Your task to perform on an android device: Go to Yahoo.com Image 0: 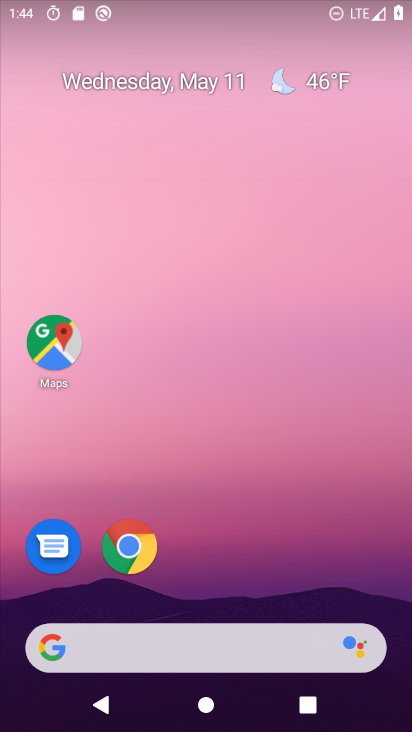
Step 0: drag from (268, 680) to (159, 242)
Your task to perform on an android device: Go to Yahoo.com Image 1: 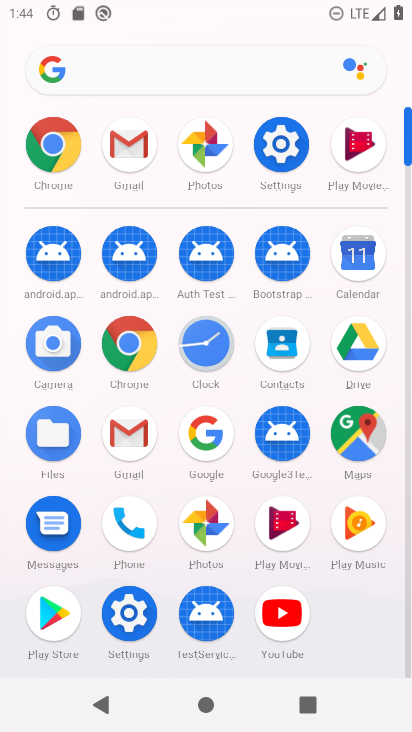
Step 1: click (50, 126)
Your task to perform on an android device: Go to Yahoo.com Image 2: 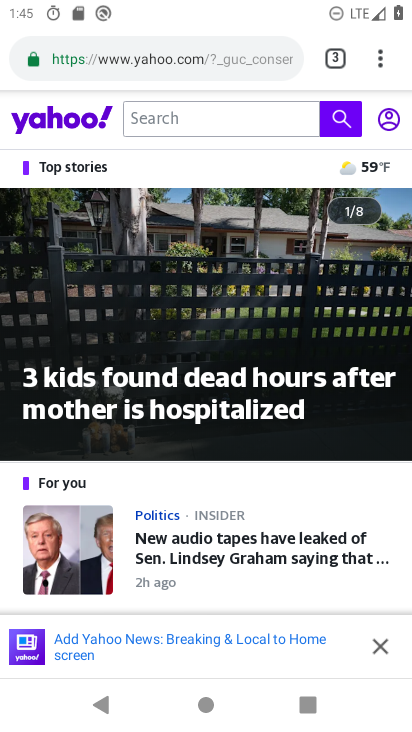
Step 2: click (129, 65)
Your task to perform on an android device: Go to Yahoo.com Image 3: 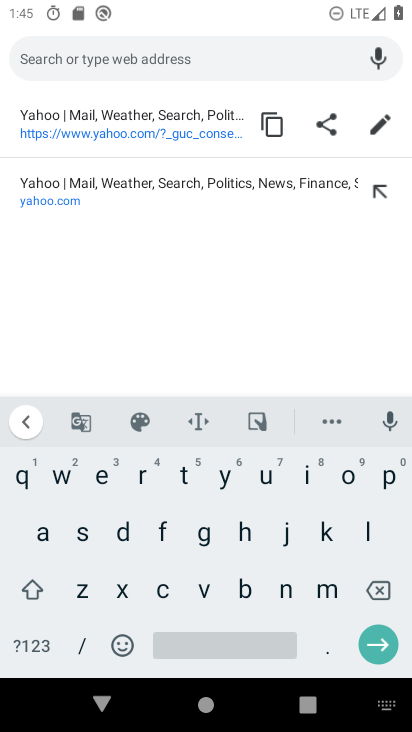
Step 3: click (106, 119)
Your task to perform on an android device: Go to Yahoo.com Image 4: 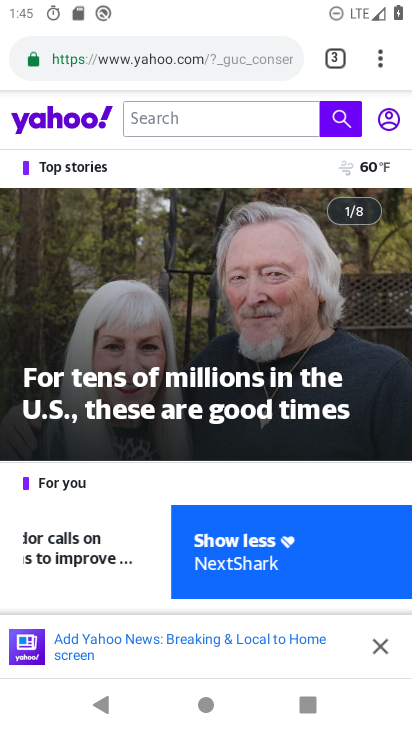
Step 4: task complete